Your task to perform on an android device: Open Chrome and go to the settings page Image 0: 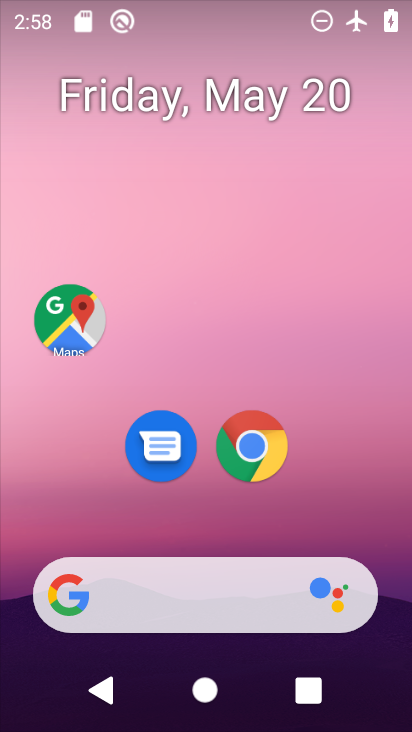
Step 0: click (251, 458)
Your task to perform on an android device: Open Chrome and go to the settings page Image 1: 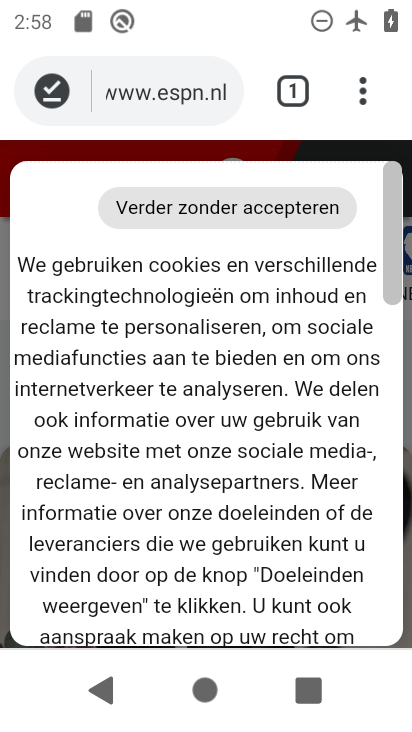
Step 1: click (364, 95)
Your task to perform on an android device: Open Chrome and go to the settings page Image 2: 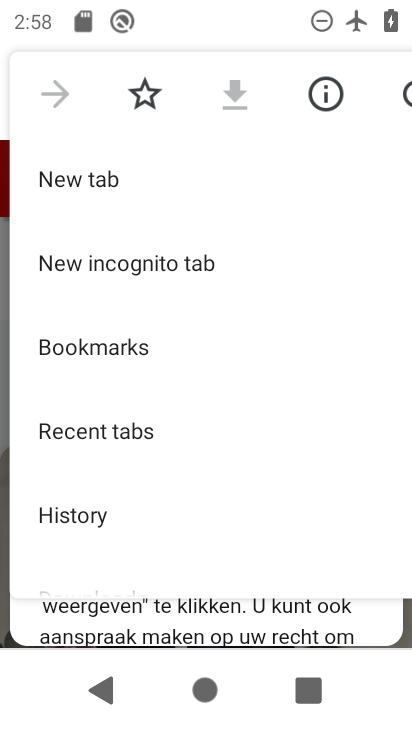
Step 2: drag from (202, 395) to (224, 79)
Your task to perform on an android device: Open Chrome and go to the settings page Image 3: 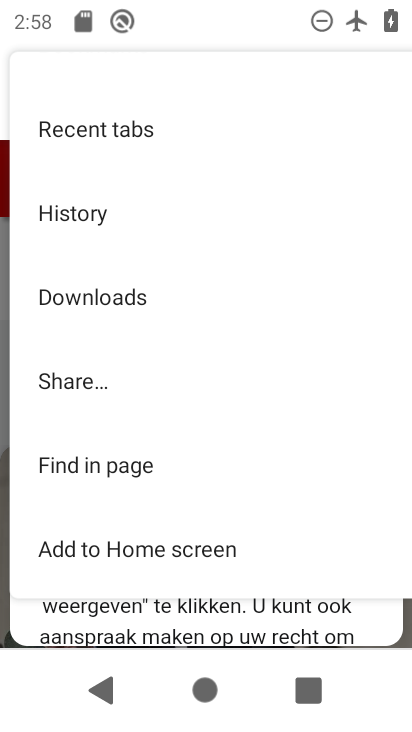
Step 3: drag from (142, 479) to (168, 132)
Your task to perform on an android device: Open Chrome and go to the settings page Image 4: 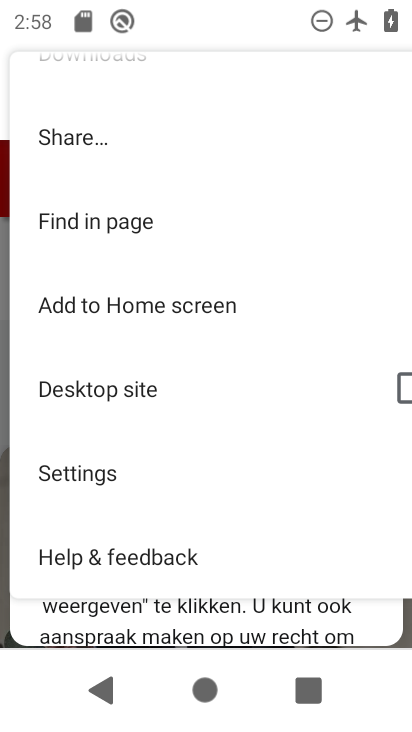
Step 4: click (69, 471)
Your task to perform on an android device: Open Chrome and go to the settings page Image 5: 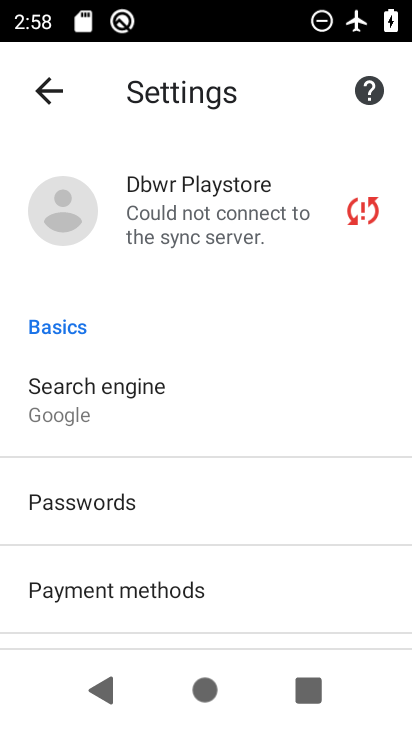
Step 5: task complete